Your task to perform on an android device: change alarm snooze length Image 0: 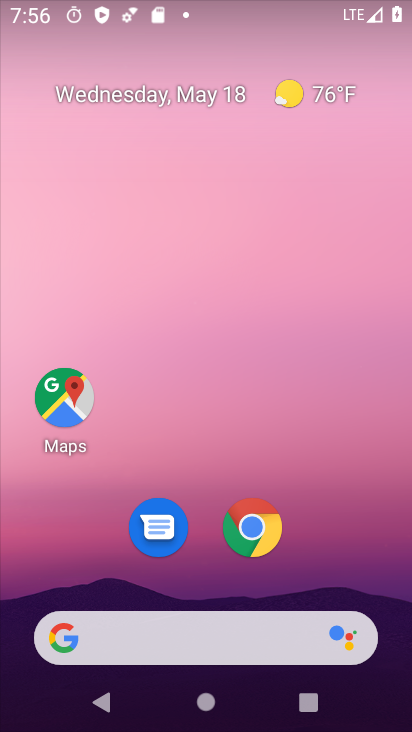
Step 0: drag from (399, 663) to (376, 10)
Your task to perform on an android device: change alarm snooze length Image 1: 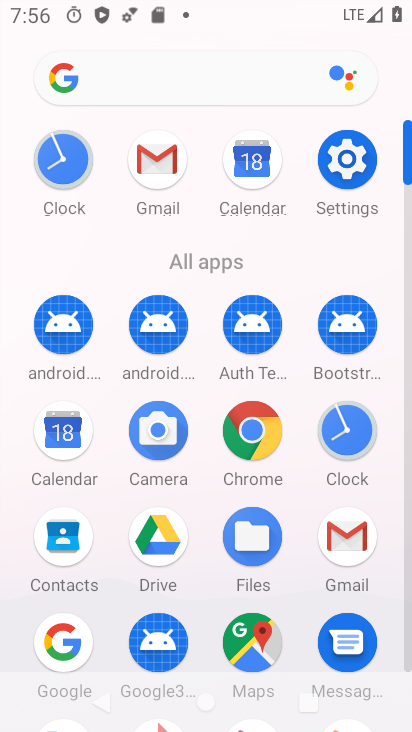
Step 1: click (342, 426)
Your task to perform on an android device: change alarm snooze length Image 2: 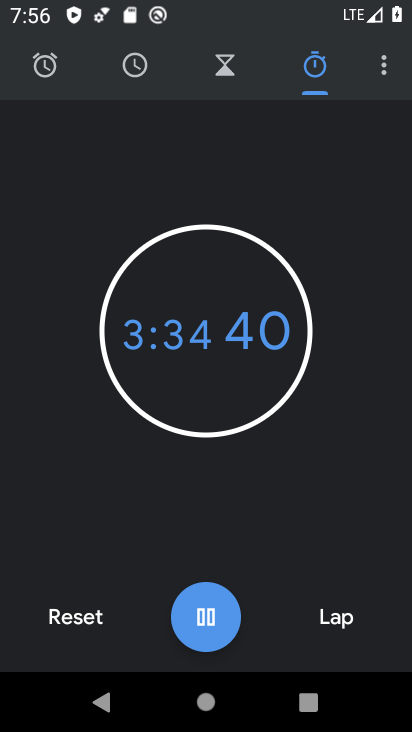
Step 2: click (386, 63)
Your task to perform on an android device: change alarm snooze length Image 3: 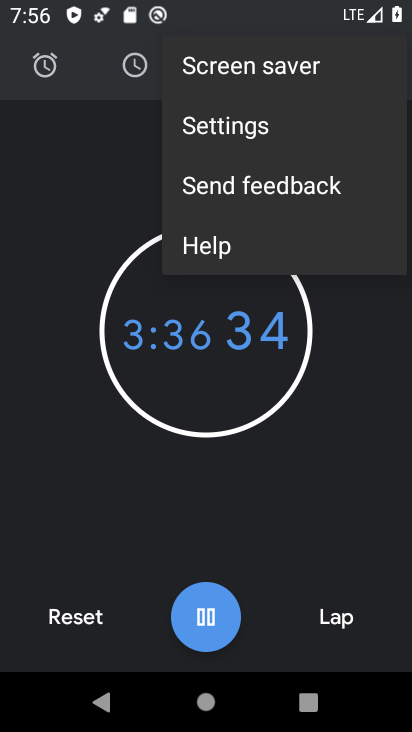
Step 3: click (237, 125)
Your task to perform on an android device: change alarm snooze length Image 4: 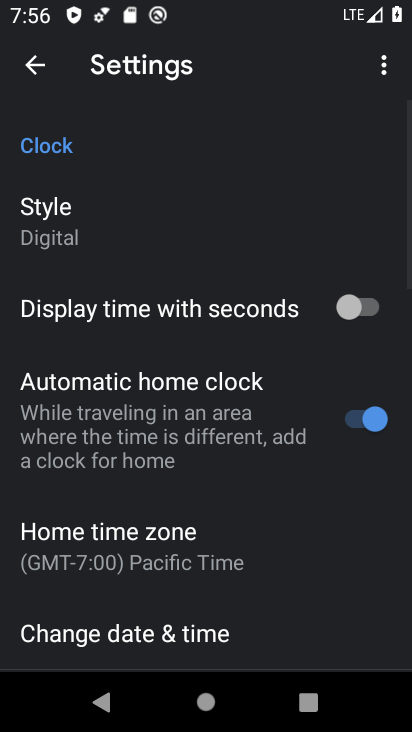
Step 4: drag from (264, 596) to (285, 108)
Your task to perform on an android device: change alarm snooze length Image 5: 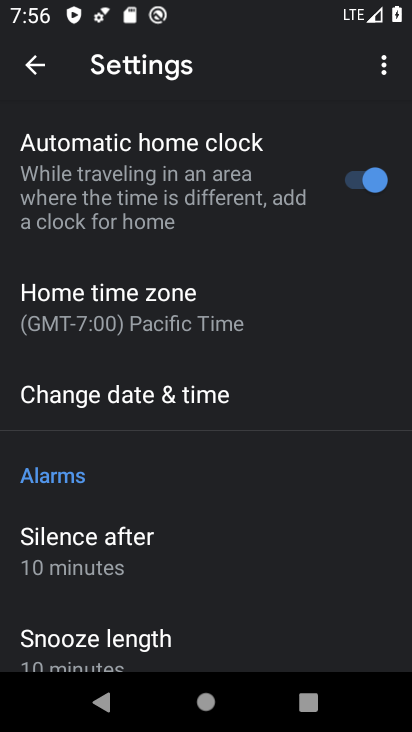
Step 5: drag from (224, 575) to (227, 236)
Your task to perform on an android device: change alarm snooze length Image 6: 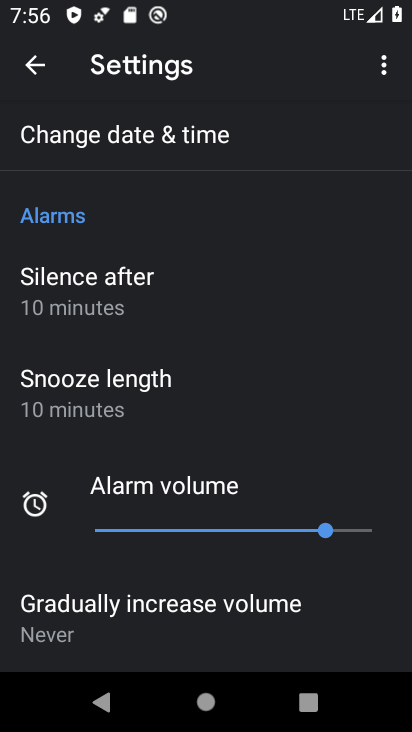
Step 6: click (89, 390)
Your task to perform on an android device: change alarm snooze length Image 7: 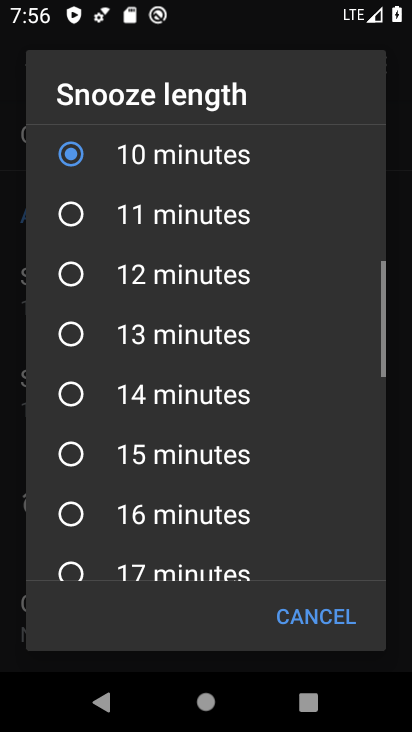
Step 7: click (71, 338)
Your task to perform on an android device: change alarm snooze length Image 8: 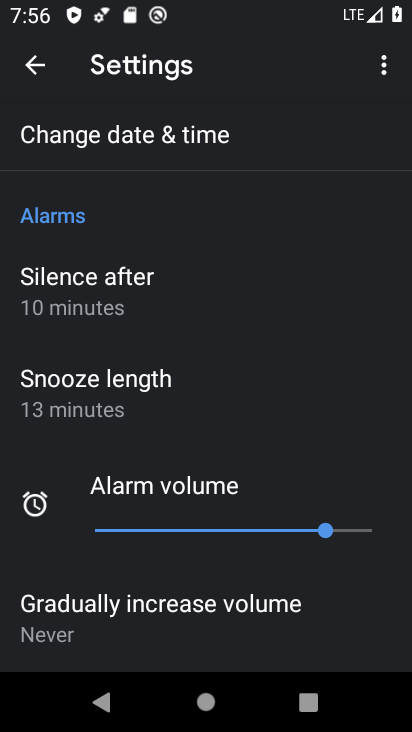
Step 8: task complete